Your task to perform on an android device: empty trash in the gmail app Image 0: 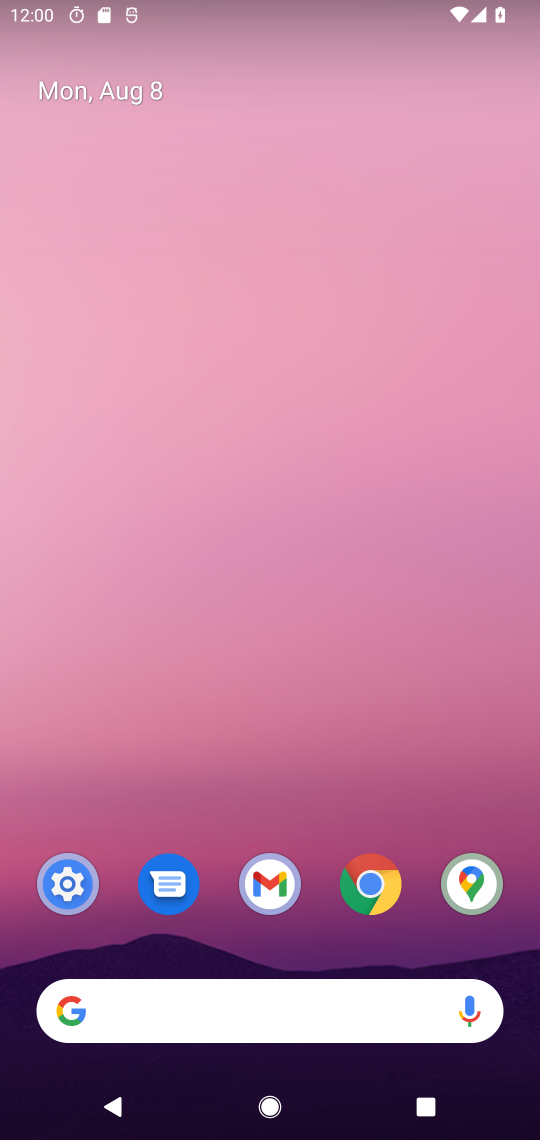
Step 0: click (260, 881)
Your task to perform on an android device: empty trash in the gmail app Image 1: 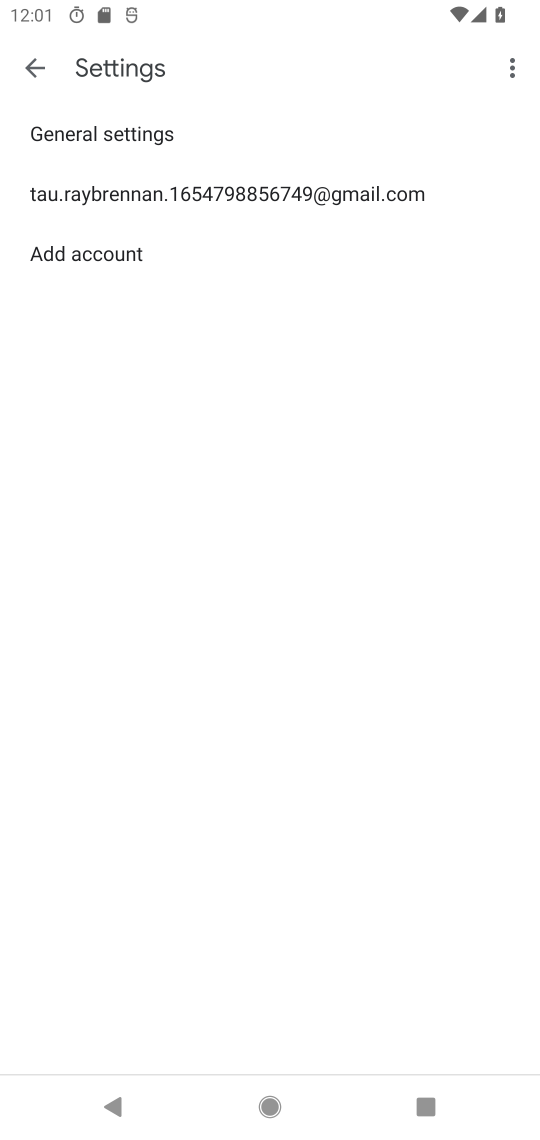
Step 1: click (34, 66)
Your task to perform on an android device: empty trash in the gmail app Image 2: 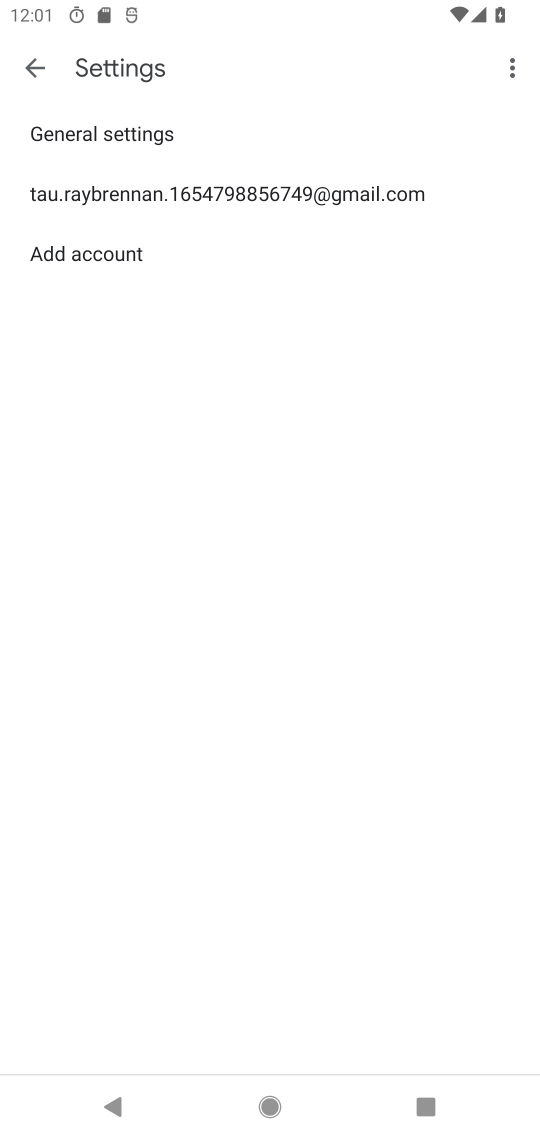
Step 2: click (34, 66)
Your task to perform on an android device: empty trash in the gmail app Image 3: 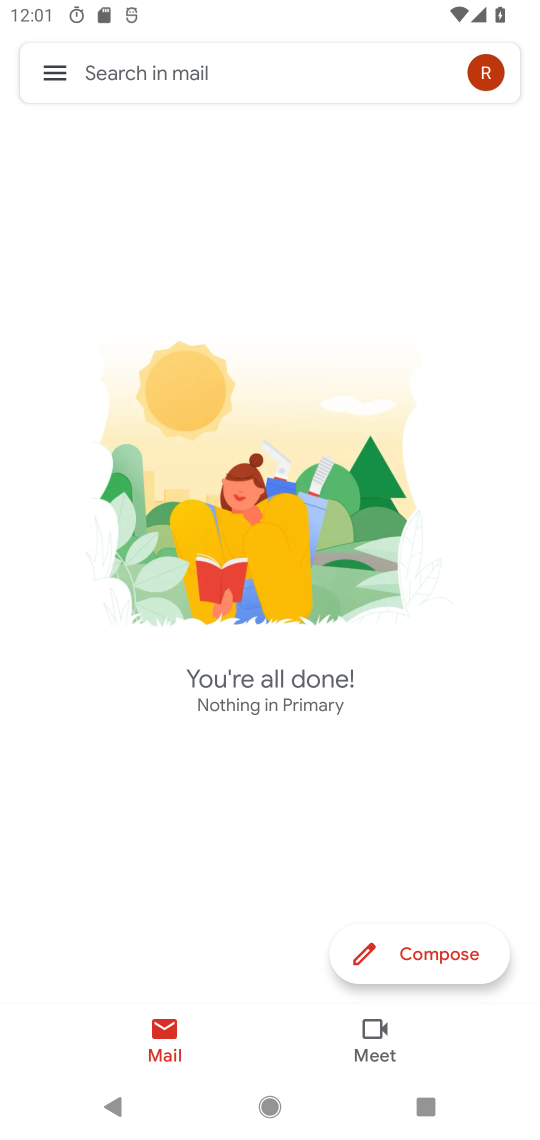
Step 3: click (58, 69)
Your task to perform on an android device: empty trash in the gmail app Image 4: 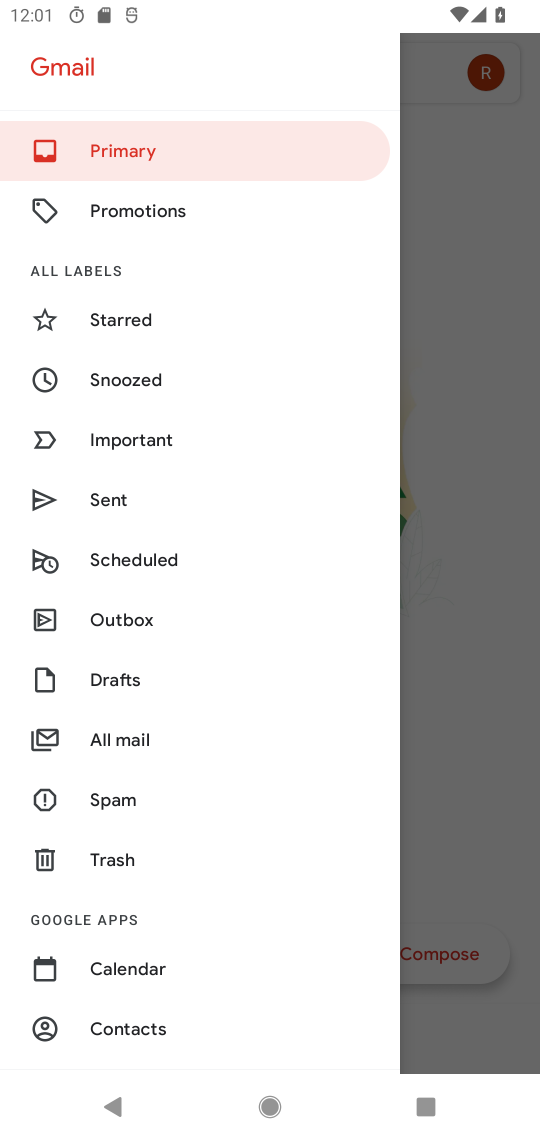
Step 4: click (104, 851)
Your task to perform on an android device: empty trash in the gmail app Image 5: 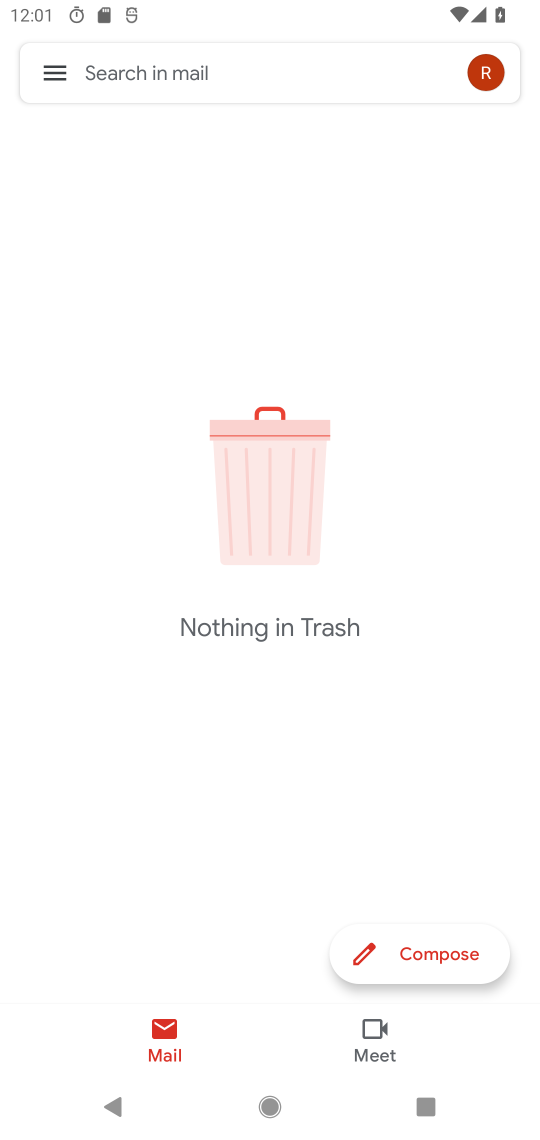
Step 5: task complete